Your task to perform on an android device: turn on priority inbox in the gmail app Image 0: 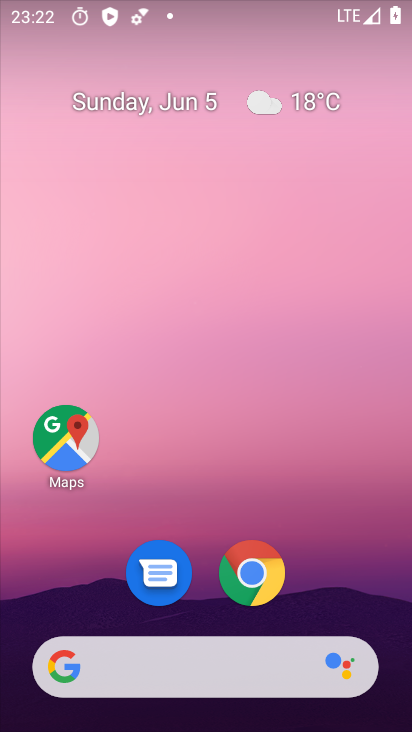
Step 0: drag from (188, 423) to (183, 125)
Your task to perform on an android device: turn on priority inbox in the gmail app Image 1: 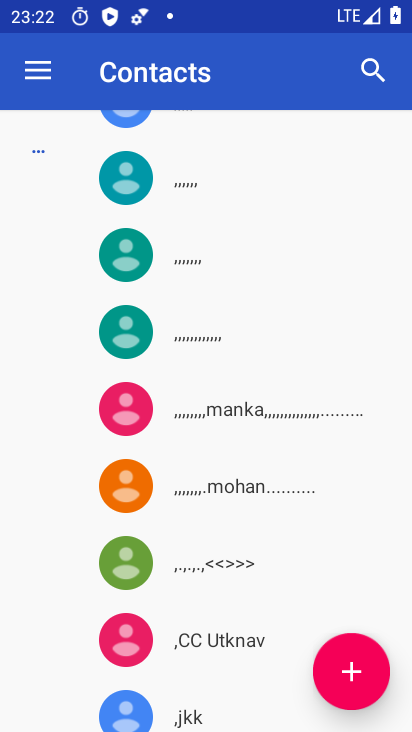
Step 1: press home button
Your task to perform on an android device: turn on priority inbox in the gmail app Image 2: 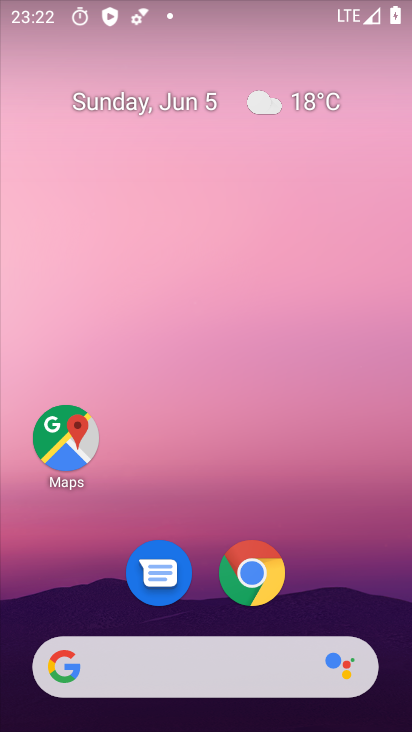
Step 2: drag from (227, 645) to (189, 183)
Your task to perform on an android device: turn on priority inbox in the gmail app Image 3: 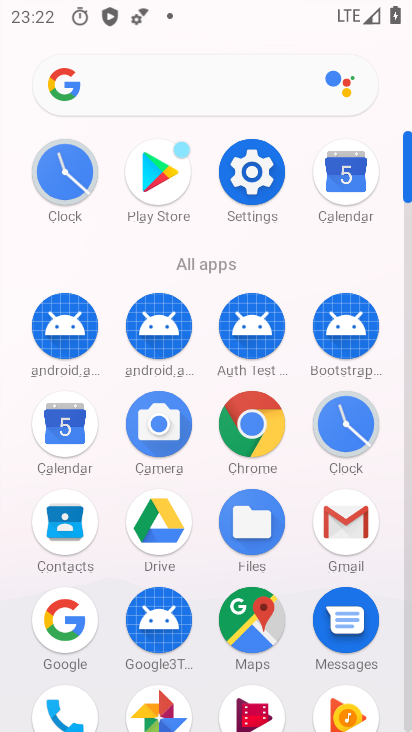
Step 3: click (343, 525)
Your task to perform on an android device: turn on priority inbox in the gmail app Image 4: 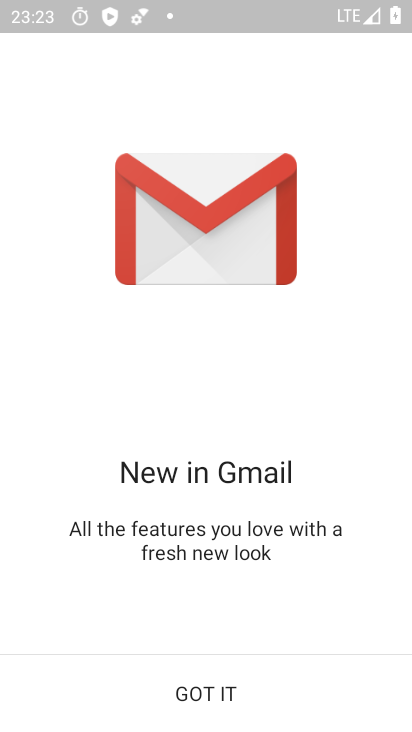
Step 4: click (218, 690)
Your task to perform on an android device: turn on priority inbox in the gmail app Image 5: 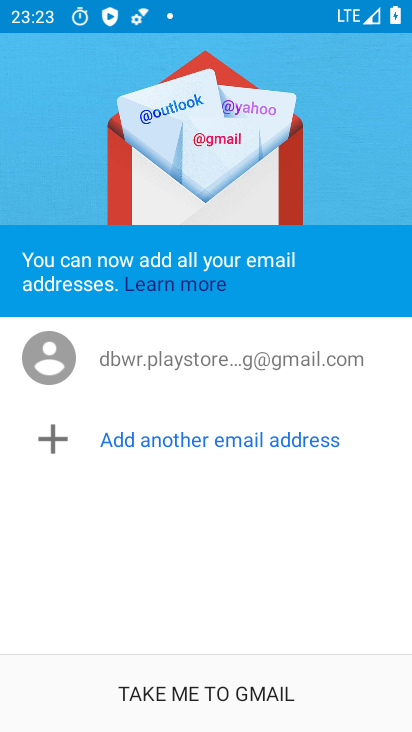
Step 5: click (196, 691)
Your task to perform on an android device: turn on priority inbox in the gmail app Image 6: 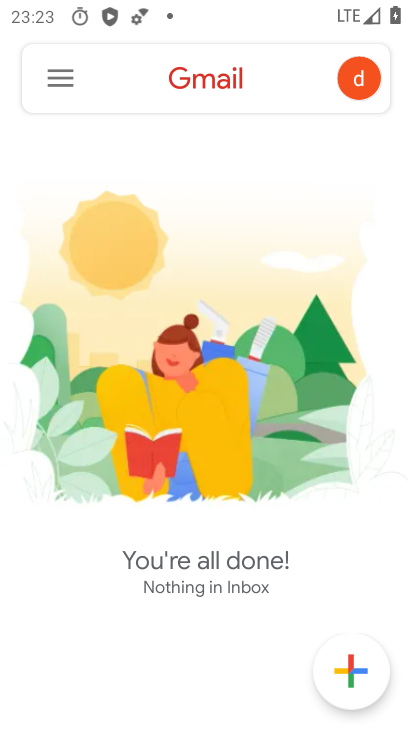
Step 6: click (39, 102)
Your task to perform on an android device: turn on priority inbox in the gmail app Image 7: 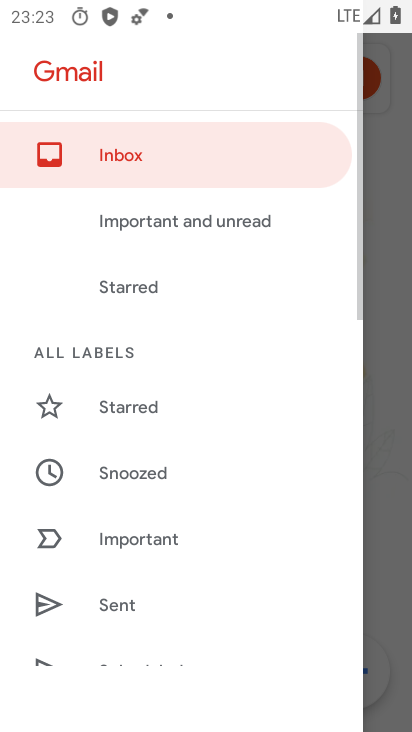
Step 7: drag from (175, 524) to (143, 88)
Your task to perform on an android device: turn on priority inbox in the gmail app Image 8: 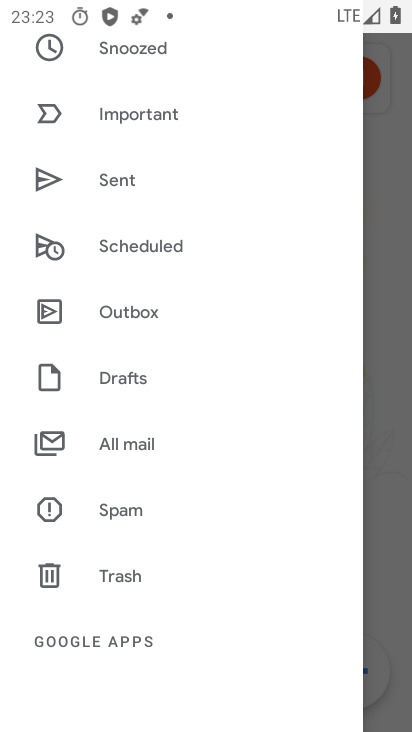
Step 8: drag from (100, 653) to (79, 1)
Your task to perform on an android device: turn on priority inbox in the gmail app Image 9: 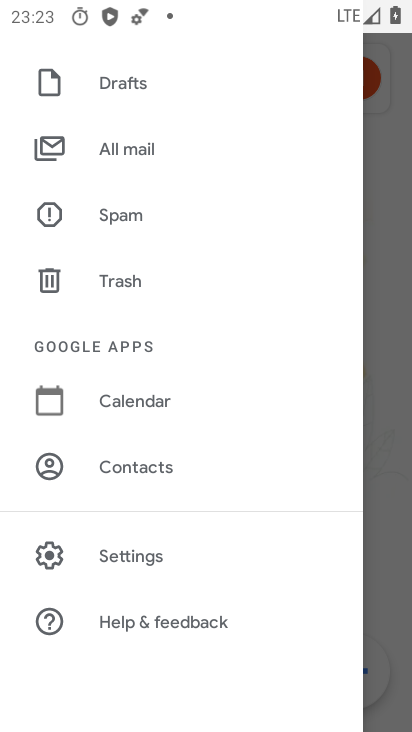
Step 9: click (117, 554)
Your task to perform on an android device: turn on priority inbox in the gmail app Image 10: 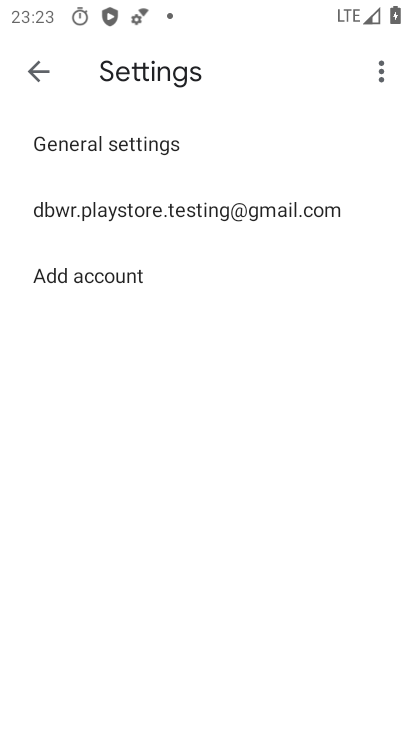
Step 10: click (86, 224)
Your task to perform on an android device: turn on priority inbox in the gmail app Image 11: 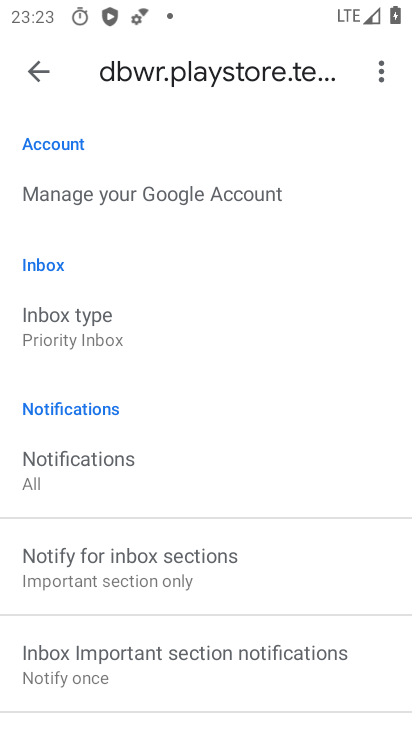
Step 11: click (104, 340)
Your task to perform on an android device: turn on priority inbox in the gmail app Image 12: 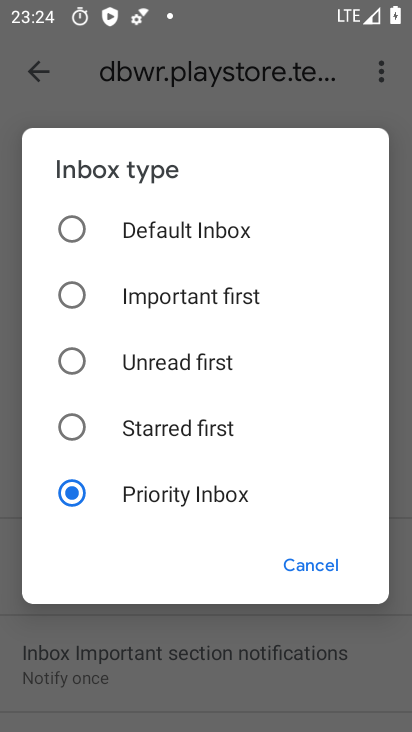
Step 12: click (140, 497)
Your task to perform on an android device: turn on priority inbox in the gmail app Image 13: 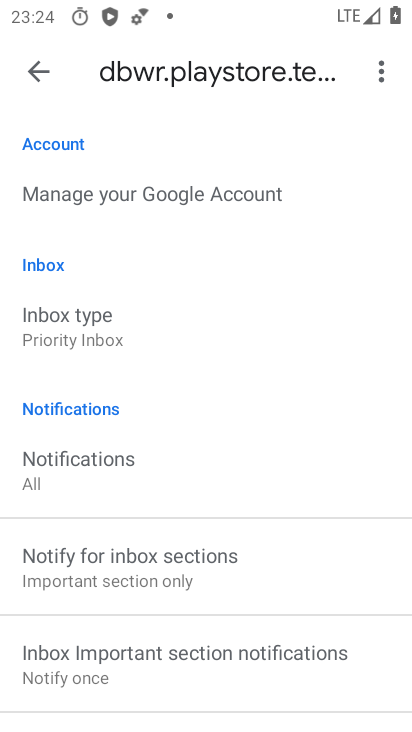
Step 13: task complete